Your task to perform on an android device: turn on location history Image 0: 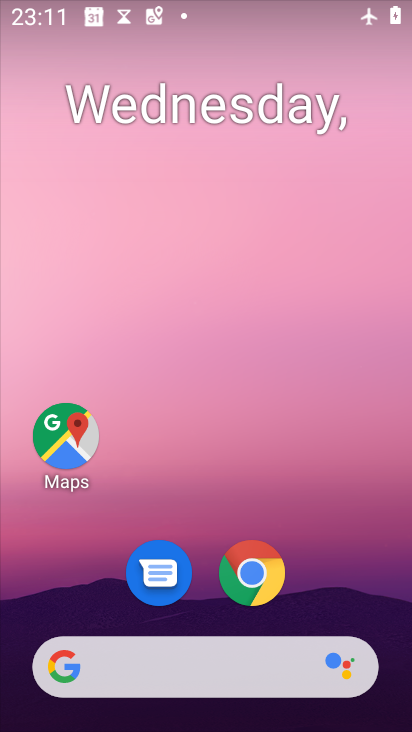
Step 0: drag from (341, 532) to (341, 247)
Your task to perform on an android device: turn on location history Image 1: 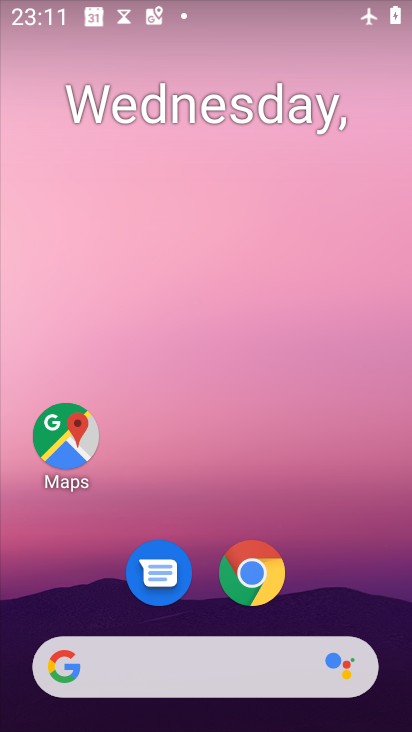
Step 1: drag from (330, 565) to (303, 293)
Your task to perform on an android device: turn on location history Image 2: 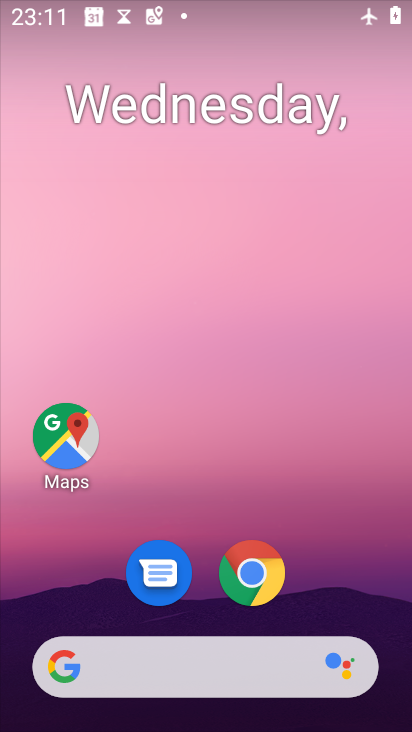
Step 2: click (325, 535)
Your task to perform on an android device: turn on location history Image 3: 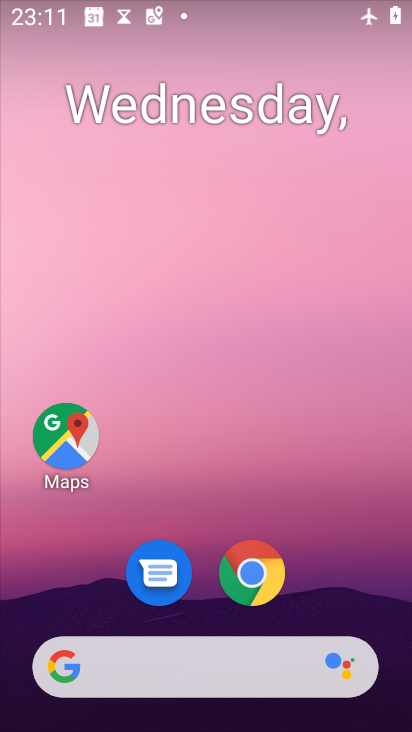
Step 3: drag from (309, 597) to (273, 175)
Your task to perform on an android device: turn on location history Image 4: 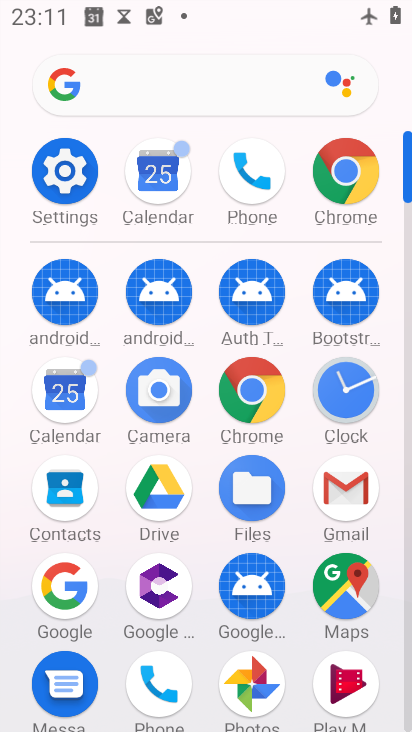
Step 4: click (58, 173)
Your task to perform on an android device: turn on location history Image 5: 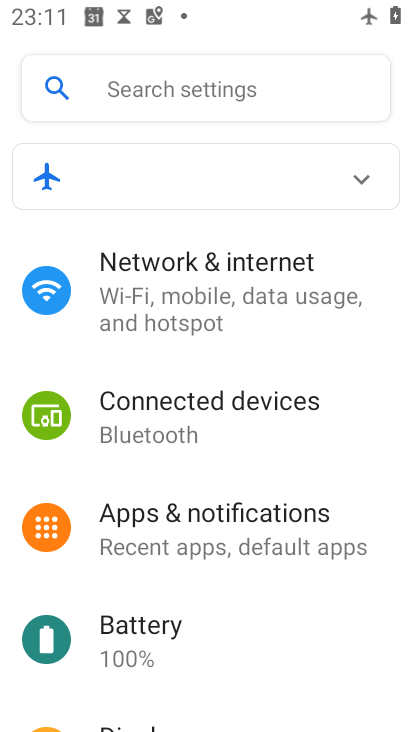
Step 5: drag from (221, 591) to (237, 224)
Your task to perform on an android device: turn on location history Image 6: 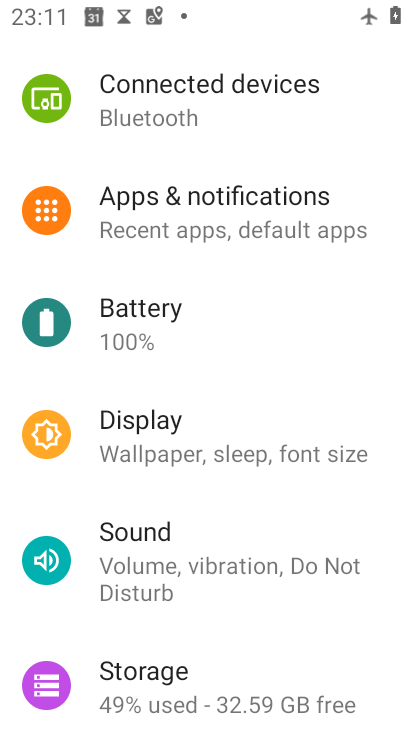
Step 6: drag from (186, 668) to (240, 293)
Your task to perform on an android device: turn on location history Image 7: 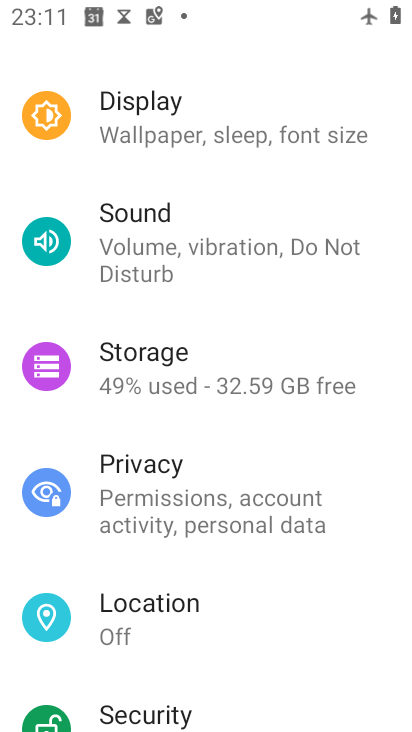
Step 7: click (199, 627)
Your task to perform on an android device: turn on location history Image 8: 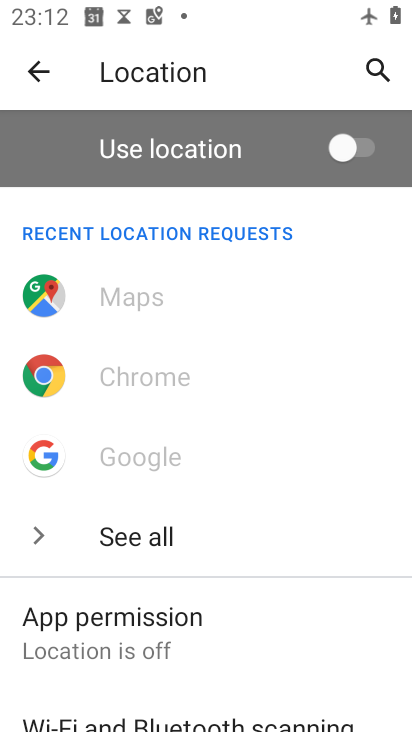
Step 8: drag from (217, 593) to (214, 318)
Your task to perform on an android device: turn on location history Image 9: 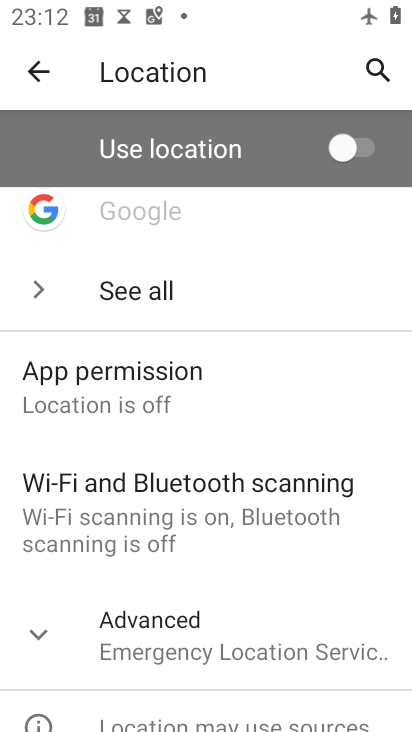
Step 9: click (264, 653)
Your task to perform on an android device: turn on location history Image 10: 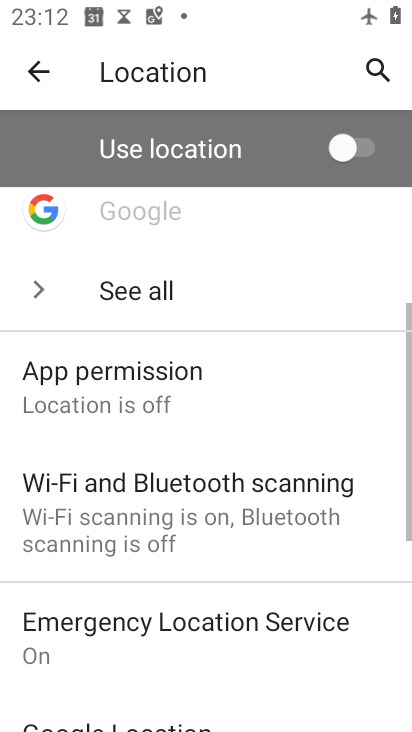
Step 10: task complete